Your task to perform on an android device: Open Youtube and go to the subscriptions tab Image 0: 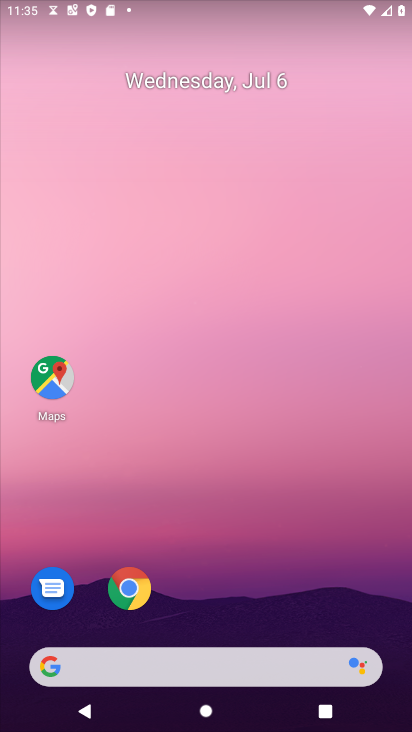
Step 0: click (208, 416)
Your task to perform on an android device: Open Youtube and go to the subscriptions tab Image 1: 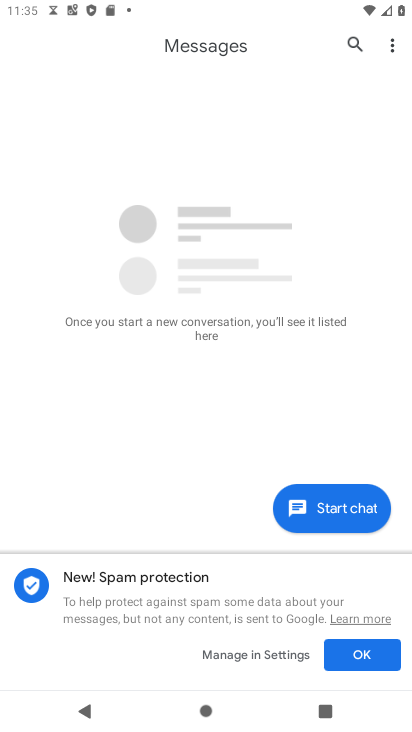
Step 1: press home button
Your task to perform on an android device: Open Youtube and go to the subscriptions tab Image 2: 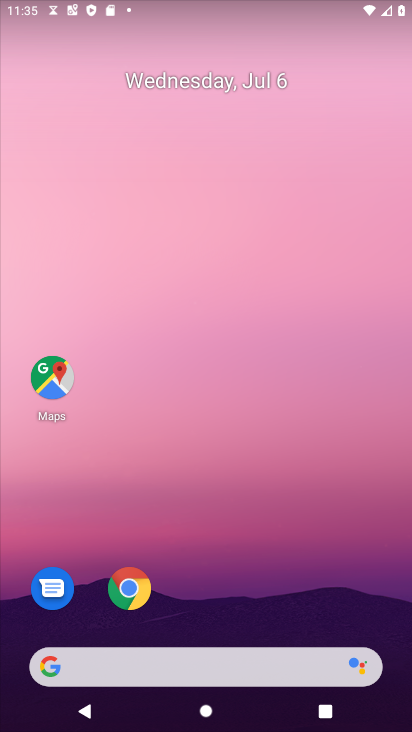
Step 2: drag from (214, 617) to (235, 317)
Your task to perform on an android device: Open Youtube and go to the subscriptions tab Image 3: 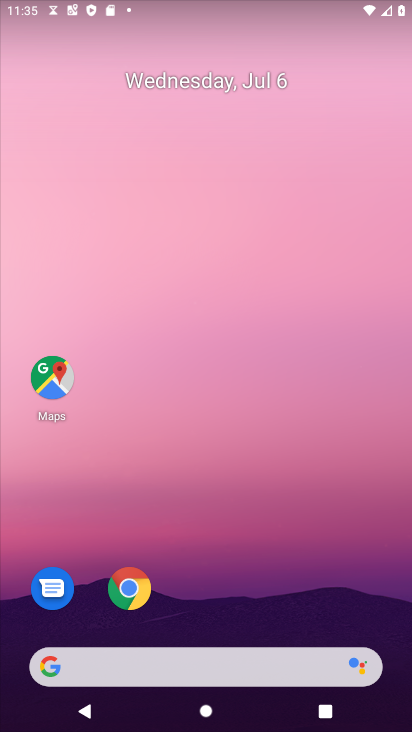
Step 3: drag from (206, 635) to (273, 362)
Your task to perform on an android device: Open Youtube and go to the subscriptions tab Image 4: 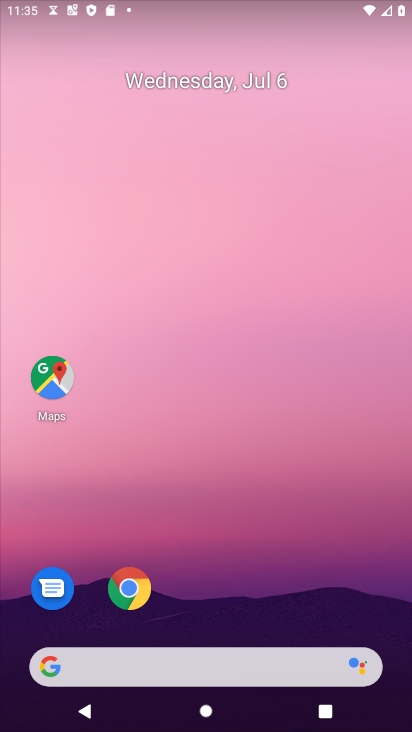
Step 4: drag from (263, 650) to (249, 171)
Your task to perform on an android device: Open Youtube and go to the subscriptions tab Image 5: 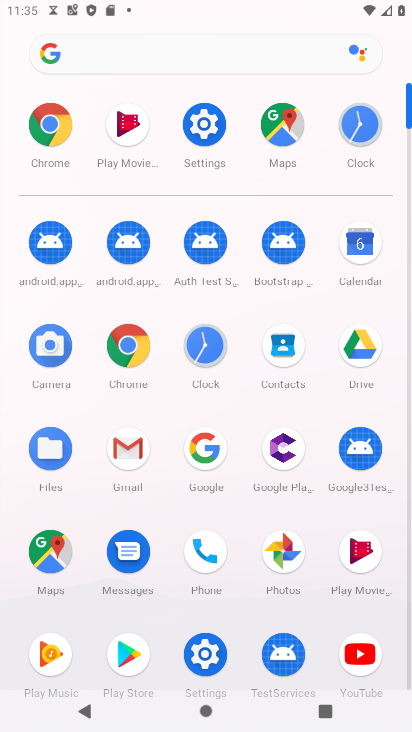
Step 5: click (362, 653)
Your task to perform on an android device: Open Youtube and go to the subscriptions tab Image 6: 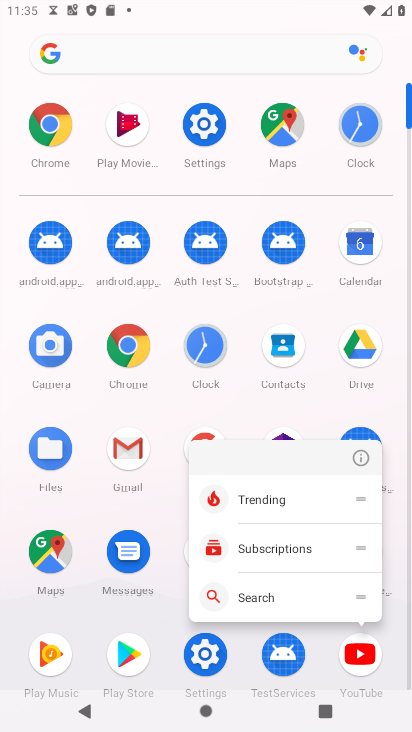
Step 6: click (362, 653)
Your task to perform on an android device: Open Youtube and go to the subscriptions tab Image 7: 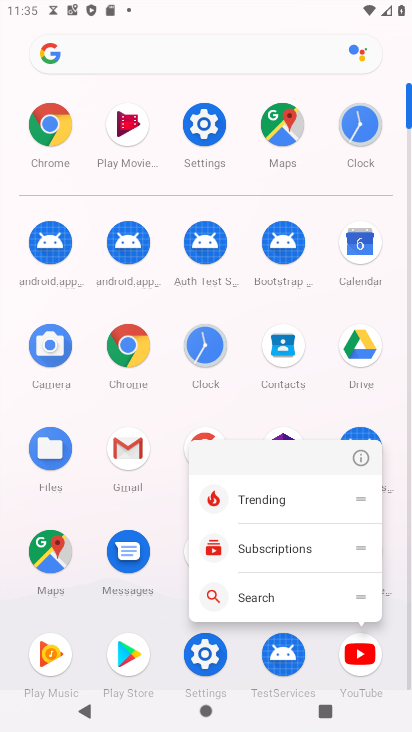
Step 7: click (362, 653)
Your task to perform on an android device: Open Youtube and go to the subscriptions tab Image 8: 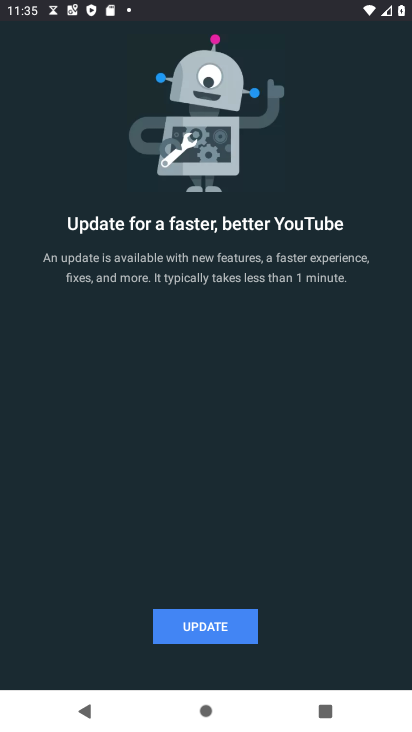
Step 8: task complete